Your task to perform on an android device: Open battery settings Image 0: 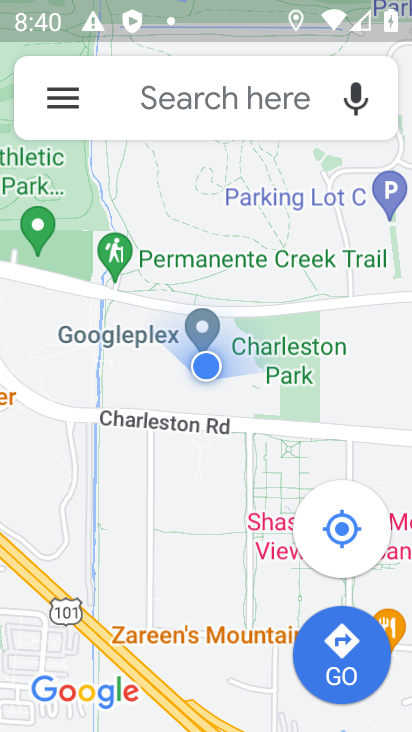
Step 0: press home button
Your task to perform on an android device: Open battery settings Image 1: 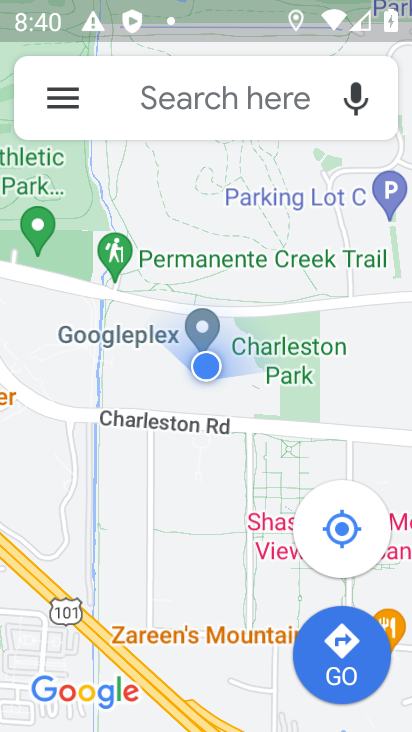
Step 1: press home button
Your task to perform on an android device: Open battery settings Image 2: 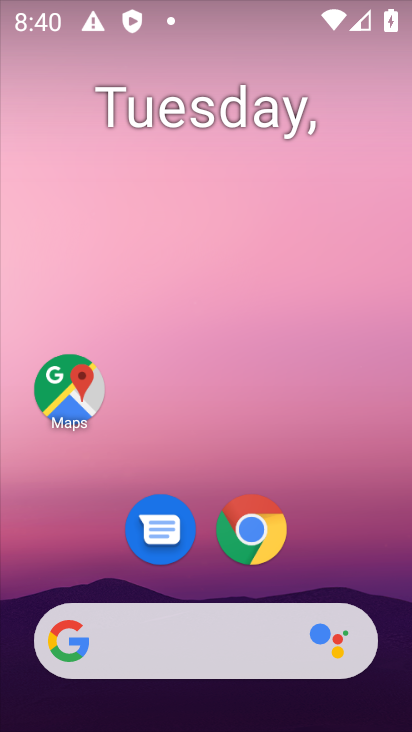
Step 2: click (207, 324)
Your task to perform on an android device: Open battery settings Image 3: 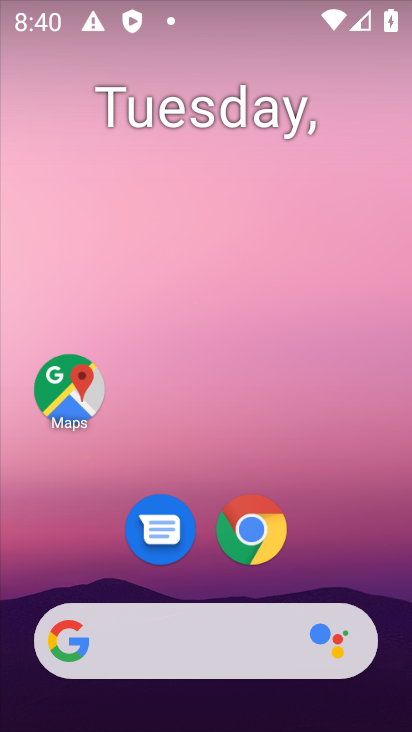
Step 3: click (229, 458)
Your task to perform on an android device: Open battery settings Image 4: 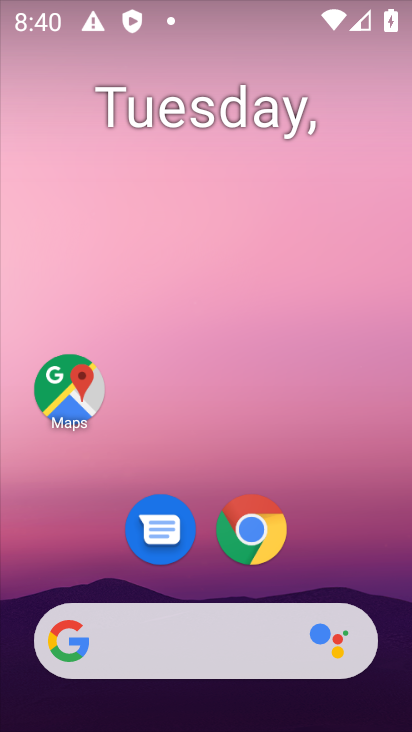
Step 4: drag from (198, 572) to (234, 243)
Your task to perform on an android device: Open battery settings Image 5: 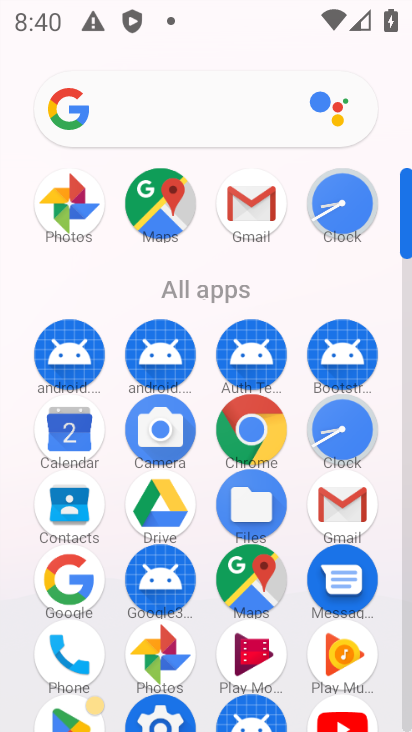
Step 5: drag from (204, 621) to (180, 179)
Your task to perform on an android device: Open battery settings Image 6: 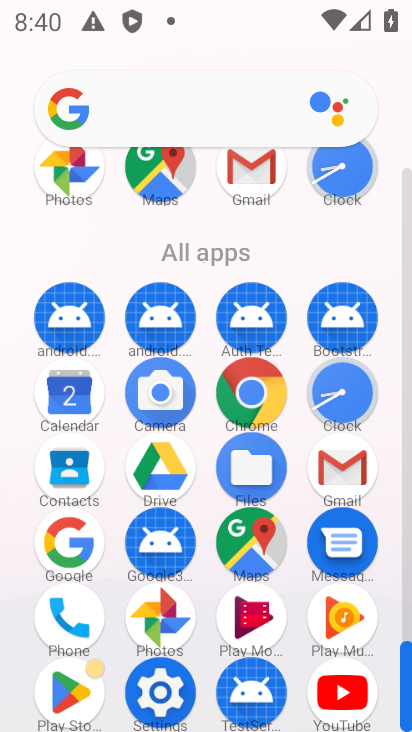
Step 6: click (171, 681)
Your task to perform on an android device: Open battery settings Image 7: 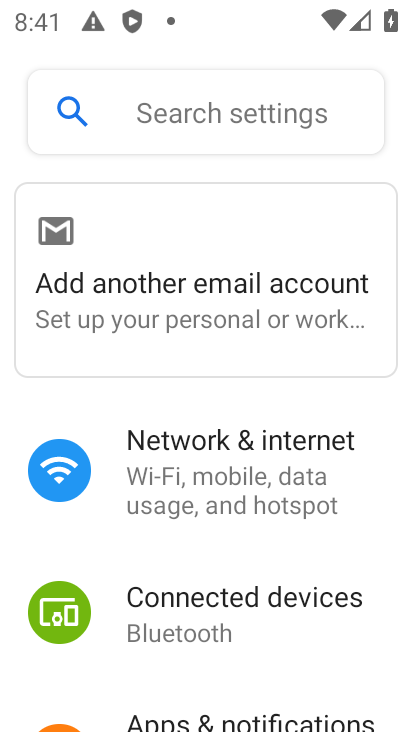
Step 7: drag from (228, 653) to (251, 125)
Your task to perform on an android device: Open battery settings Image 8: 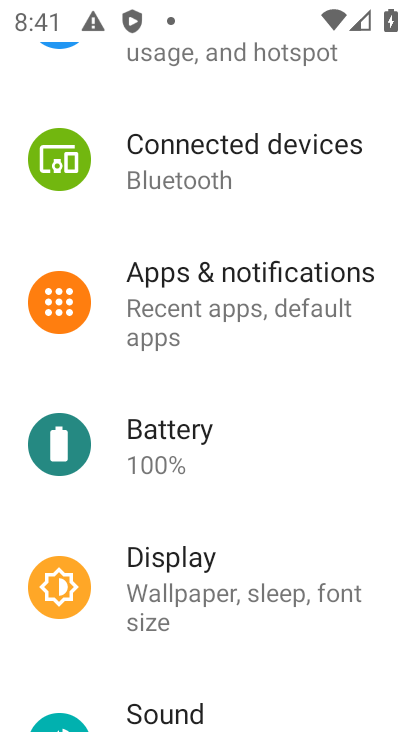
Step 8: click (166, 439)
Your task to perform on an android device: Open battery settings Image 9: 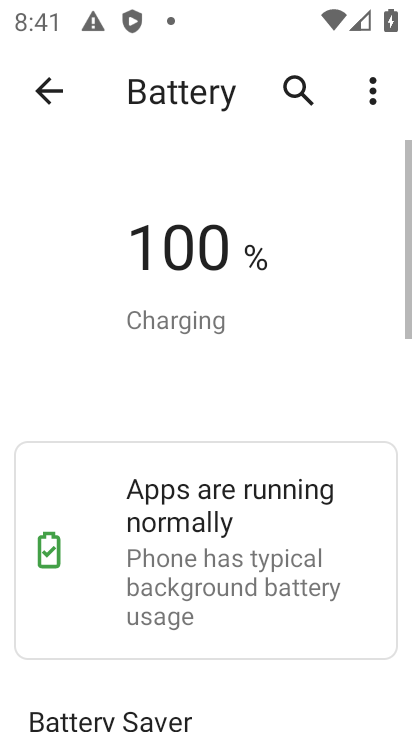
Step 9: task complete